Your task to perform on an android device: turn off improve location accuracy Image 0: 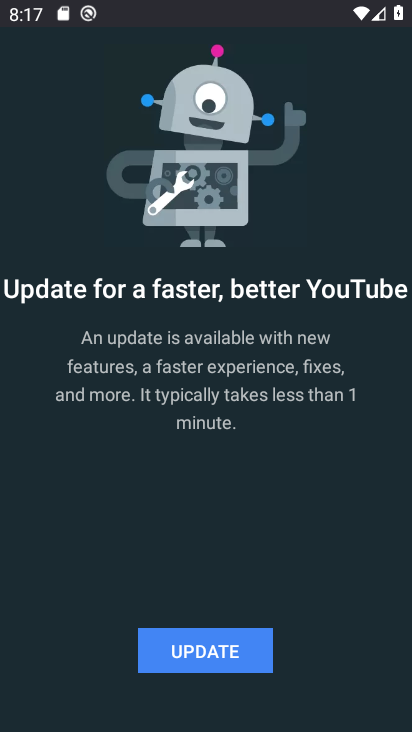
Step 0: press home button
Your task to perform on an android device: turn off improve location accuracy Image 1: 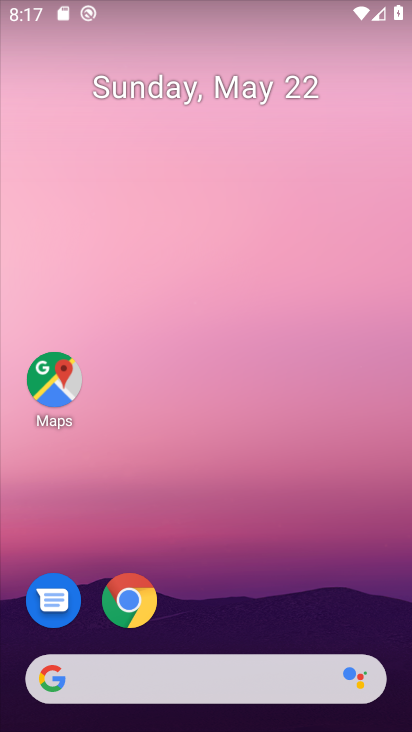
Step 1: drag from (213, 651) to (183, 271)
Your task to perform on an android device: turn off improve location accuracy Image 2: 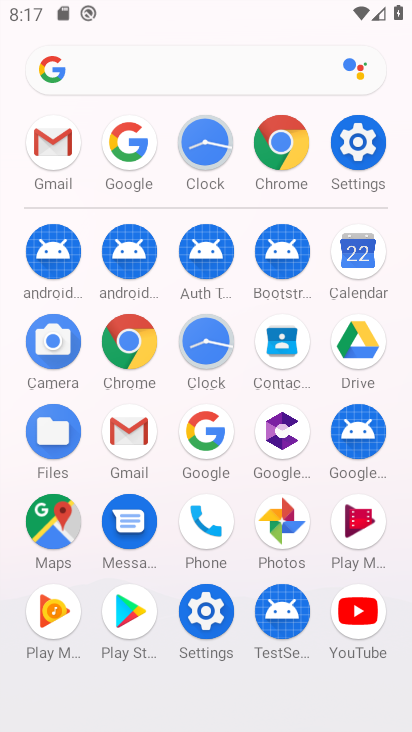
Step 2: click (356, 142)
Your task to perform on an android device: turn off improve location accuracy Image 3: 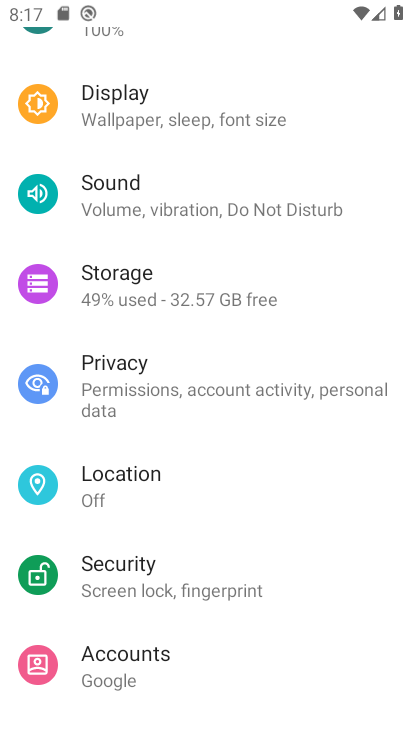
Step 3: click (111, 493)
Your task to perform on an android device: turn off improve location accuracy Image 4: 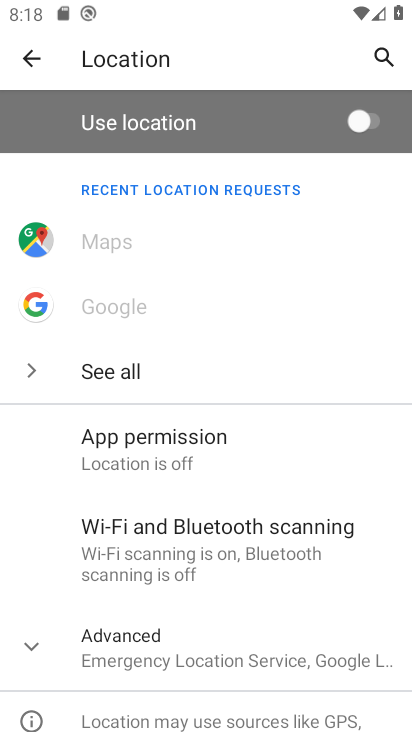
Step 4: click (158, 657)
Your task to perform on an android device: turn off improve location accuracy Image 5: 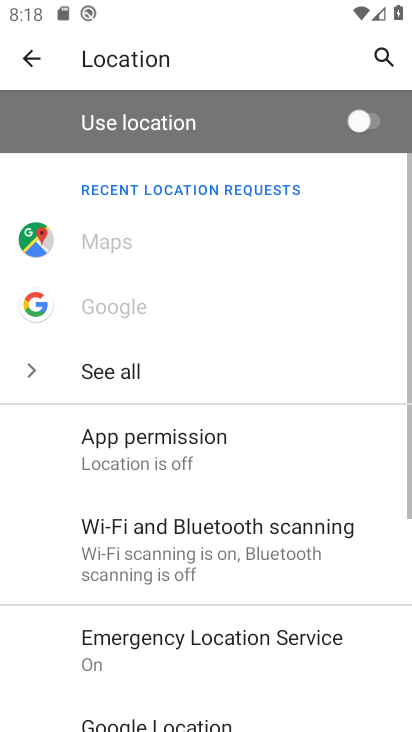
Step 5: drag from (167, 706) to (210, 380)
Your task to perform on an android device: turn off improve location accuracy Image 6: 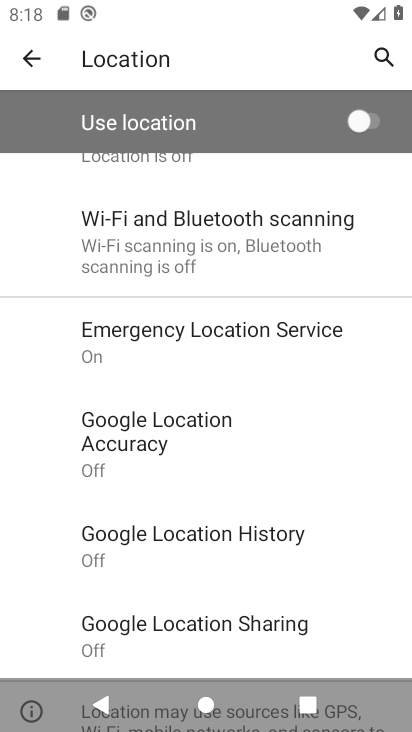
Step 6: click (177, 417)
Your task to perform on an android device: turn off improve location accuracy Image 7: 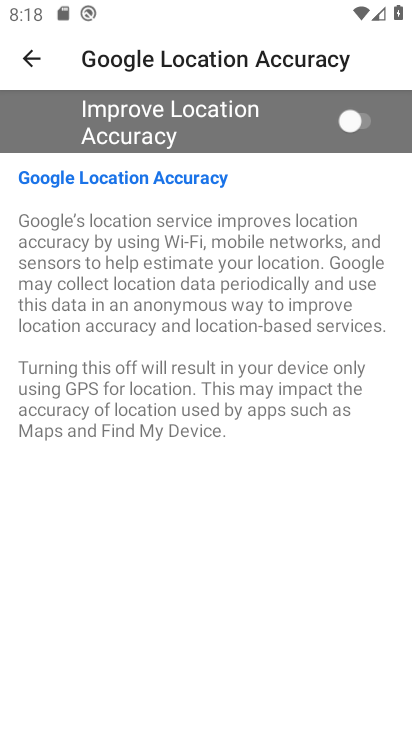
Step 7: task complete